Your task to perform on an android device: Do I have any events this weekend? Image 0: 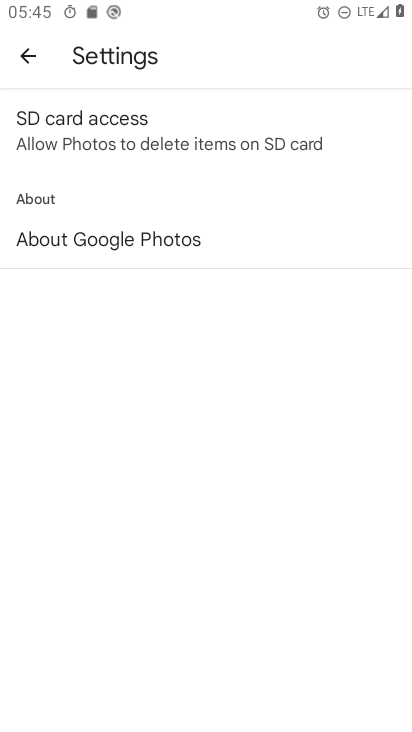
Step 0: press home button
Your task to perform on an android device: Do I have any events this weekend? Image 1: 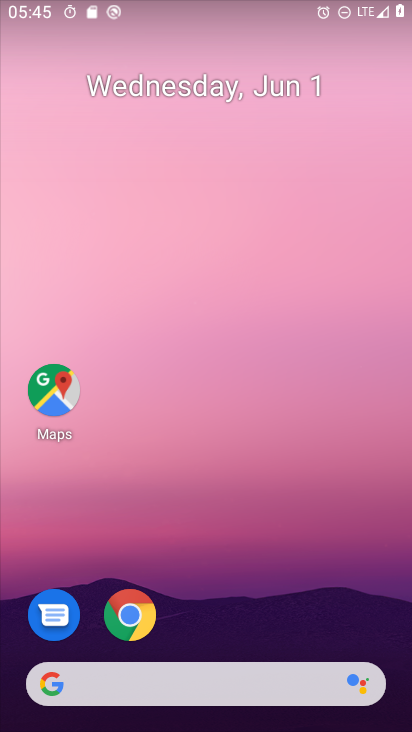
Step 1: drag from (22, 239) to (92, 246)
Your task to perform on an android device: Do I have any events this weekend? Image 2: 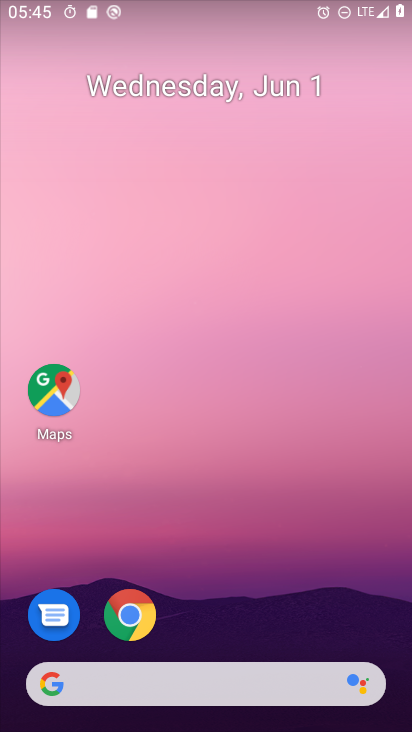
Step 2: drag from (226, 596) to (254, 0)
Your task to perform on an android device: Do I have any events this weekend? Image 3: 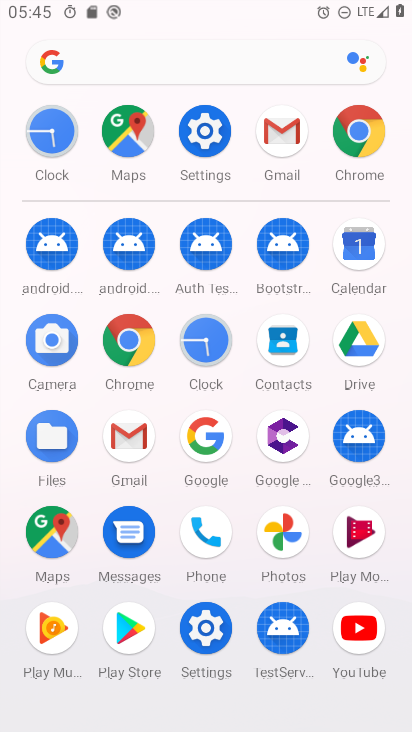
Step 3: click (357, 248)
Your task to perform on an android device: Do I have any events this weekend? Image 4: 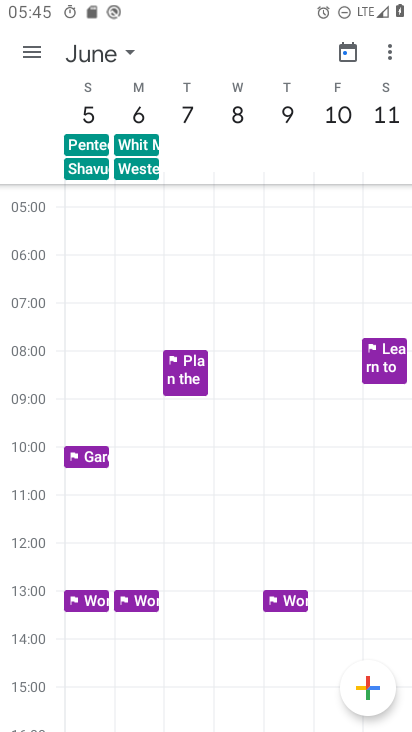
Step 4: click (130, 55)
Your task to perform on an android device: Do I have any events this weekend? Image 5: 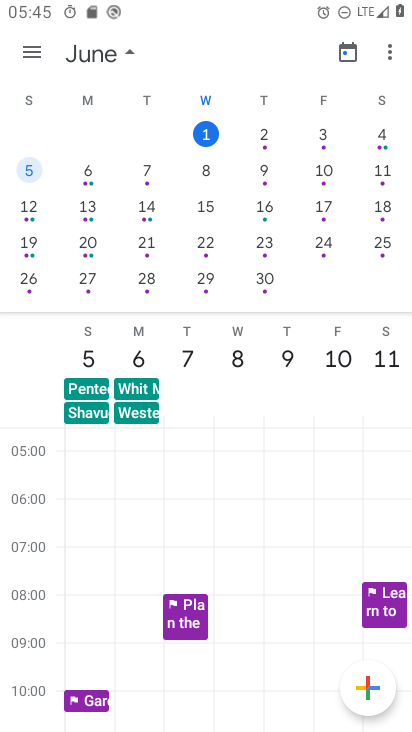
Step 5: click (376, 140)
Your task to perform on an android device: Do I have any events this weekend? Image 6: 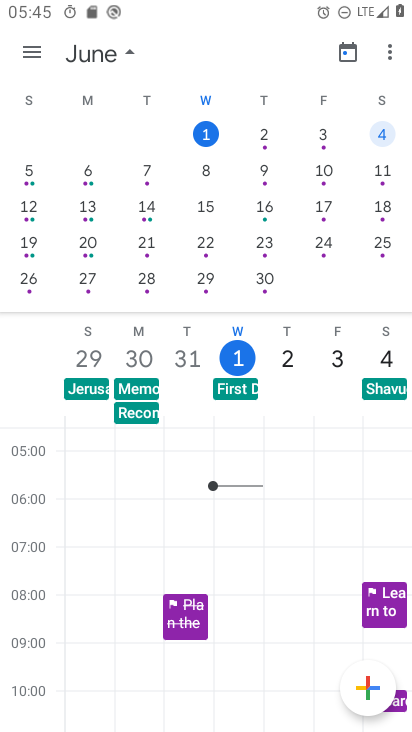
Step 6: click (376, 128)
Your task to perform on an android device: Do I have any events this weekend? Image 7: 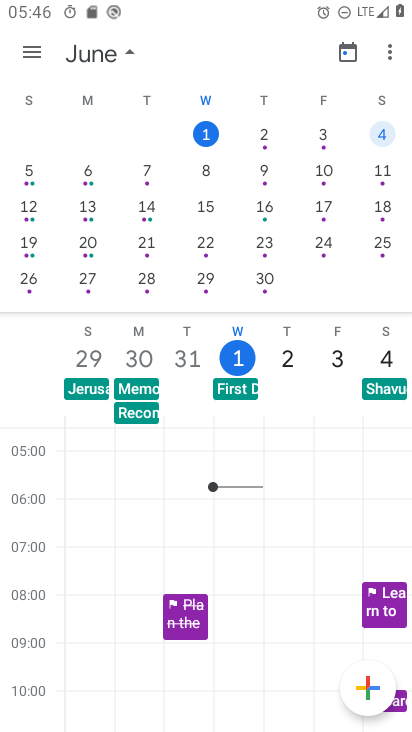
Step 7: click (375, 134)
Your task to perform on an android device: Do I have any events this weekend? Image 8: 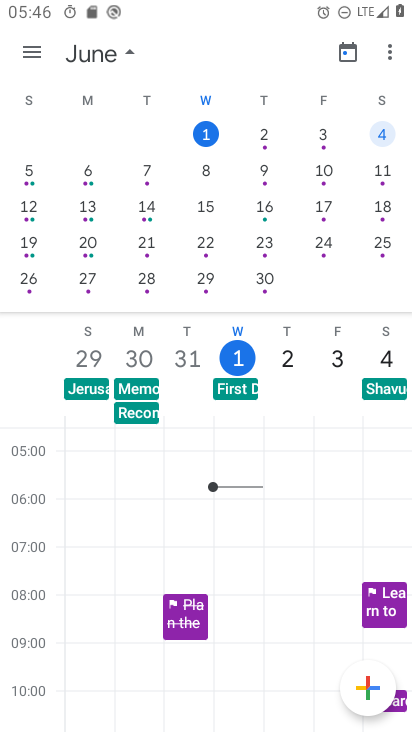
Step 8: task complete